Your task to perform on an android device: Open Google Chrome and click the shortcut for Amazon.com Image 0: 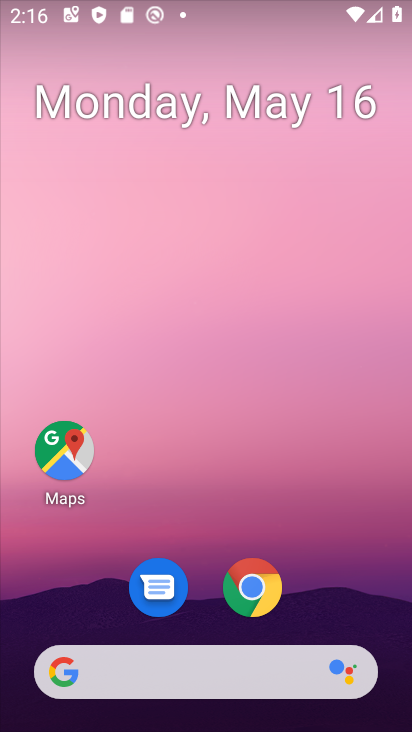
Step 0: drag from (352, 560) to (168, 193)
Your task to perform on an android device: Open Google Chrome and click the shortcut for Amazon.com Image 1: 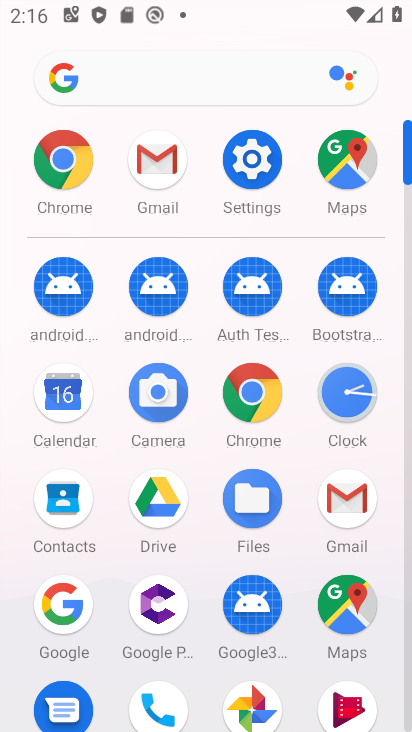
Step 1: click (45, 159)
Your task to perform on an android device: Open Google Chrome and click the shortcut for Amazon.com Image 2: 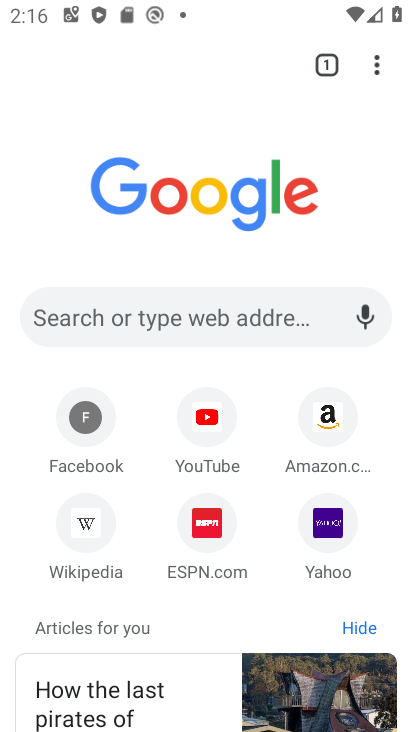
Step 2: click (308, 418)
Your task to perform on an android device: Open Google Chrome and click the shortcut for Amazon.com Image 3: 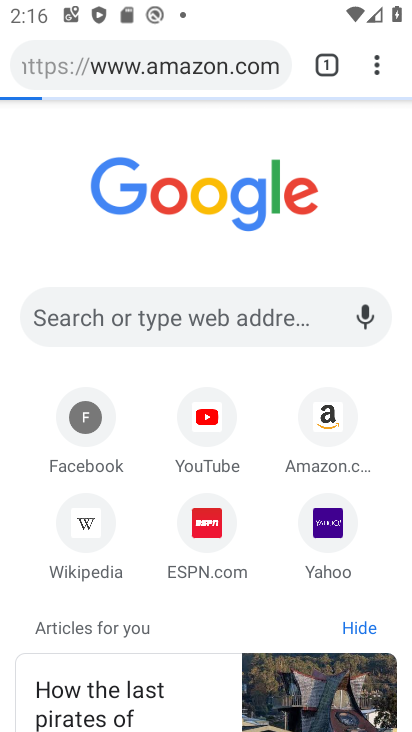
Step 3: click (308, 418)
Your task to perform on an android device: Open Google Chrome and click the shortcut for Amazon.com Image 4: 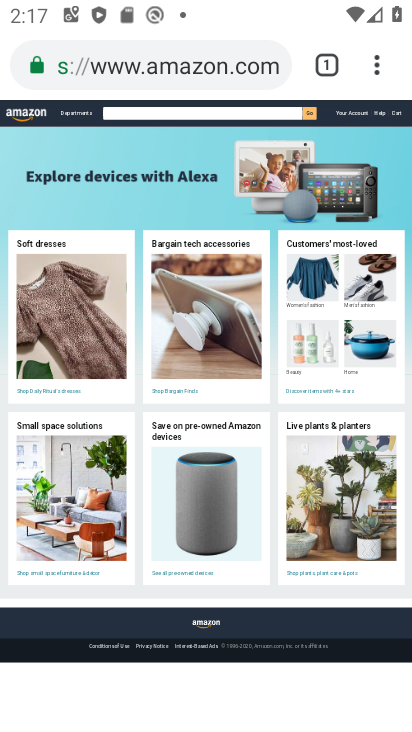
Step 4: task complete